Your task to perform on an android device: change the clock display to analog Image 0: 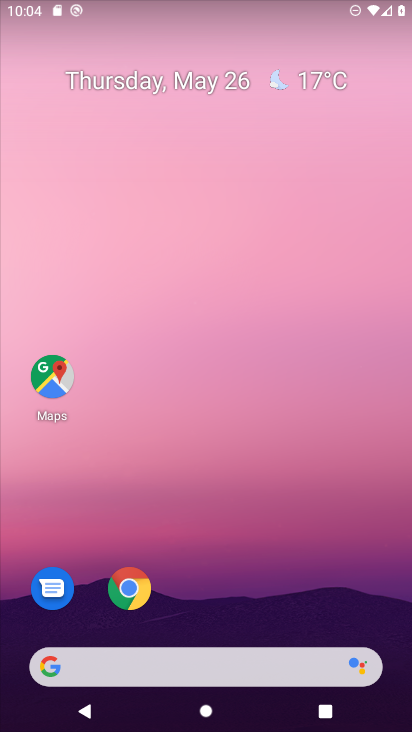
Step 0: drag from (396, 629) to (272, 13)
Your task to perform on an android device: change the clock display to analog Image 1: 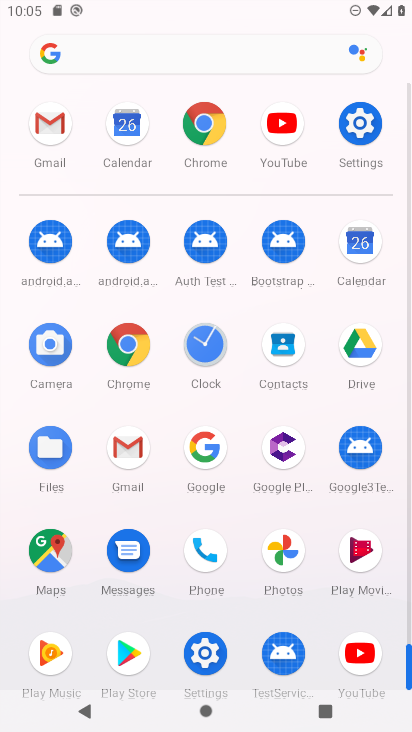
Step 1: click (204, 342)
Your task to perform on an android device: change the clock display to analog Image 2: 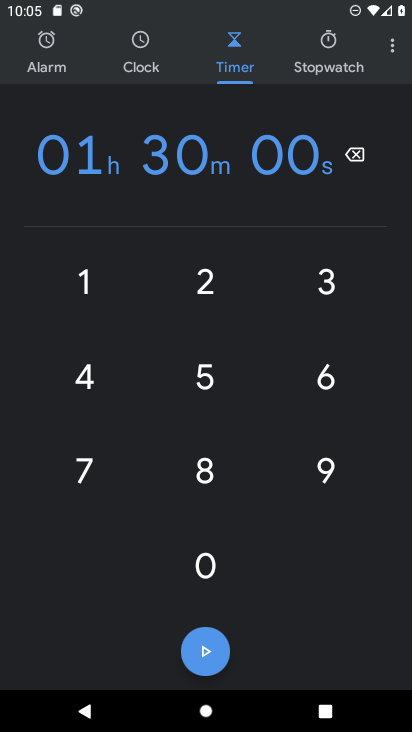
Step 2: click (392, 54)
Your task to perform on an android device: change the clock display to analog Image 3: 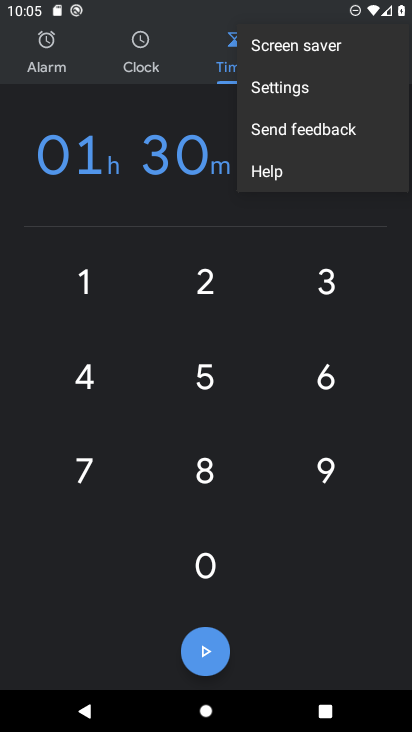
Step 3: click (269, 84)
Your task to perform on an android device: change the clock display to analog Image 4: 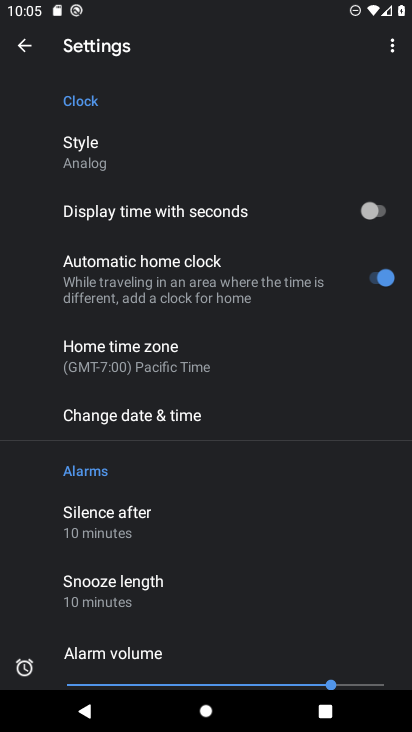
Step 4: task complete